Your task to perform on an android device: Search for sushi restaurants on Maps Image 0: 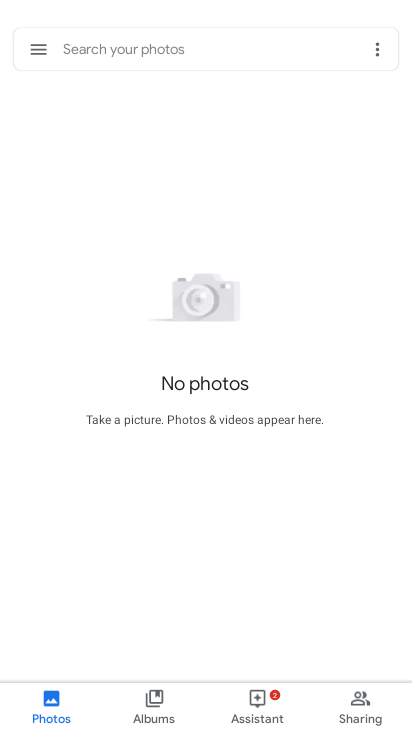
Step 0: press home button
Your task to perform on an android device: Search for sushi restaurants on Maps Image 1: 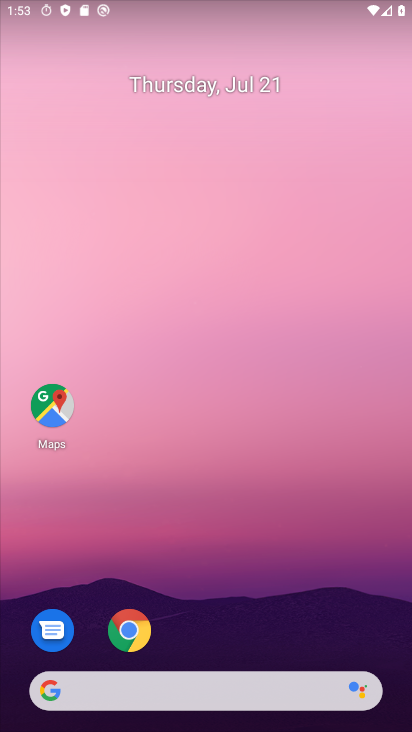
Step 1: click (54, 401)
Your task to perform on an android device: Search for sushi restaurants on Maps Image 2: 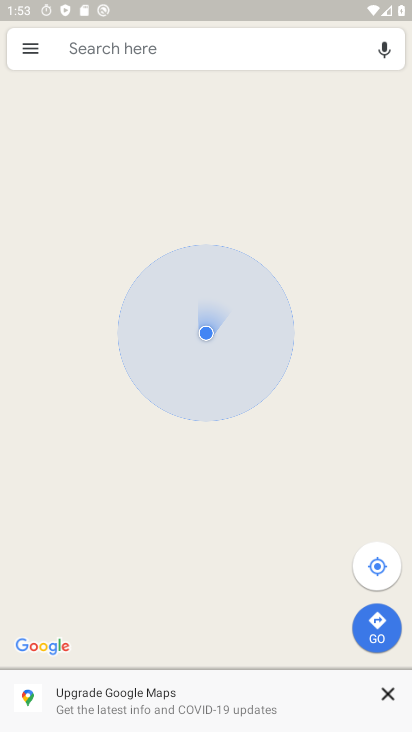
Step 2: click (169, 46)
Your task to perform on an android device: Search for sushi restaurants on Maps Image 3: 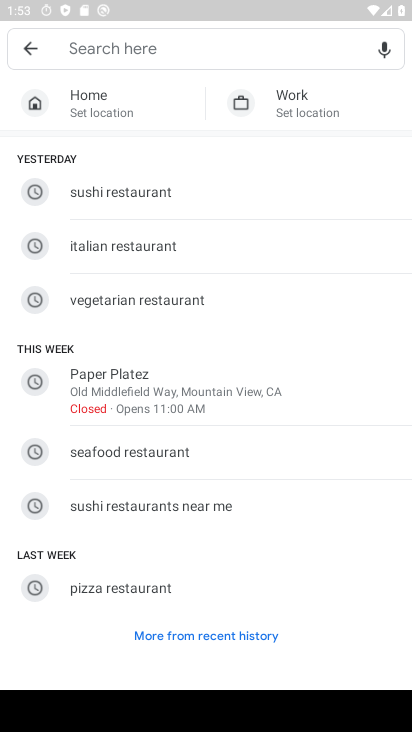
Step 3: click (137, 196)
Your task to perform on an android device: Search for sushi restaurants on Maps Image 4: 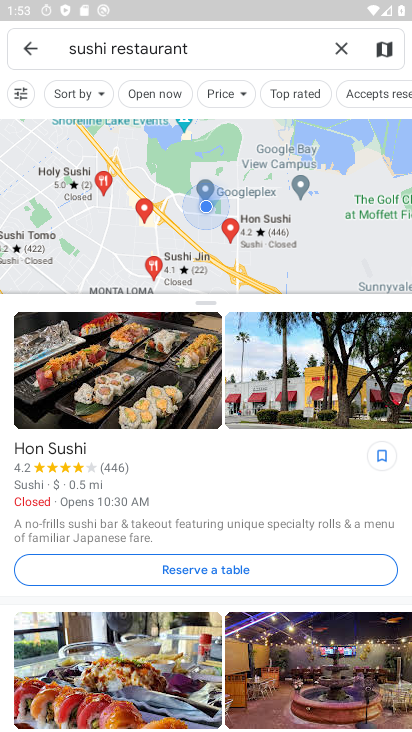
Step 4: task complete